Your task to perform on an android device: set an alarm Image 0: 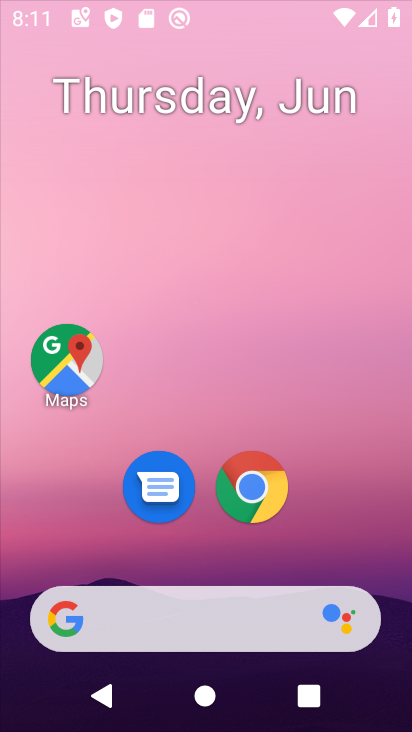
Step 0: click (203, 26)
Your task to perform on an android device: set an alarm Image 1: 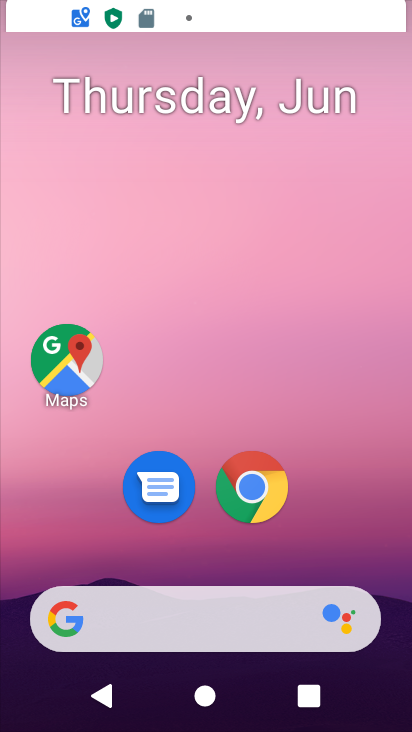
Step 1: drag from (210, 501) to (250, 5)
Your task to perform on an android device: set an alarm Image 2: 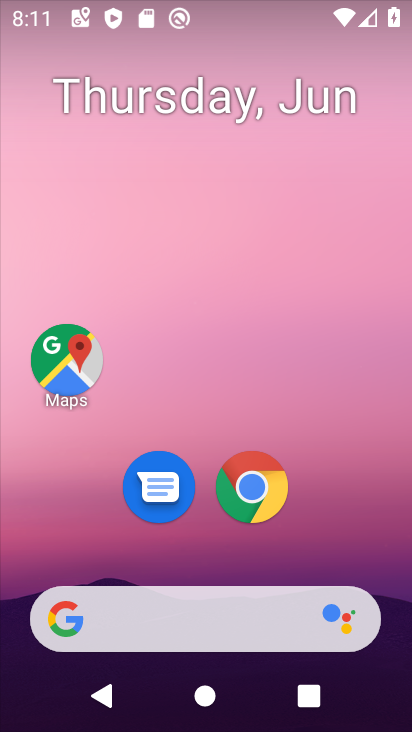
Step 2: drag from (194, 554) to (223, 91)
Your task to perform on an android device: set an alarm Image 3: 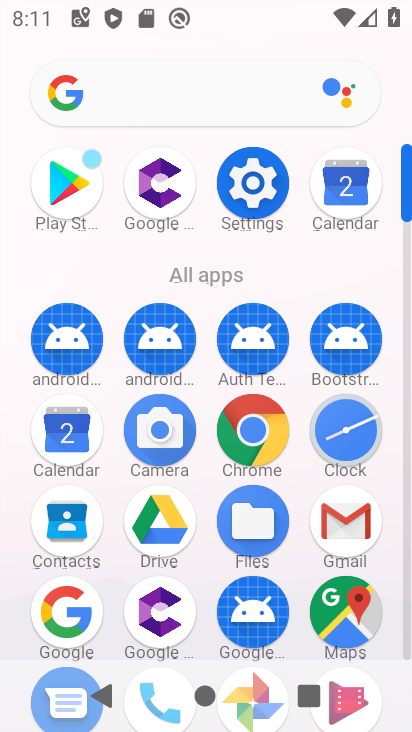
Step 3: click (347, 431)
Your task to perform on an android device: set an alarm Image 4: 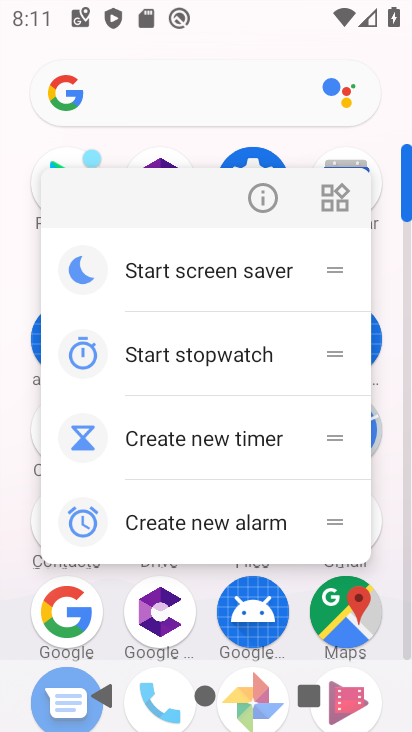
Step 4: click (258, 197)
Your task to perform on an android device: set an alarm Image 5: 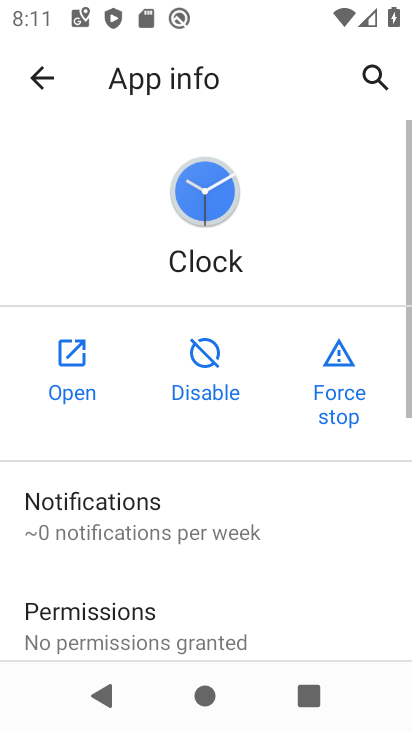
Step 5: click (65, 376)
Your task to perform on an android device: set an alarm Image 6: 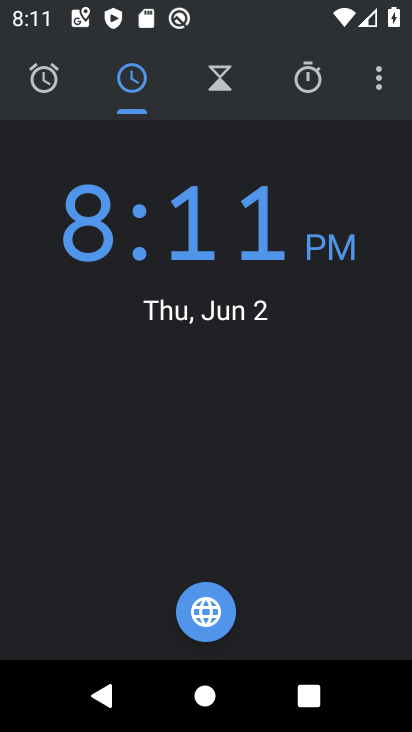
Step 6: click (50, 77)
Your task to perform on an android device: set an alarm Image 7: 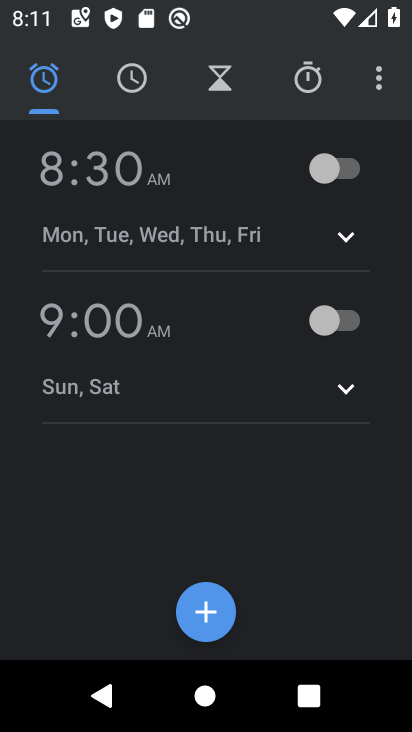
Step 7: task complete